Your task to perform on an android device: Toggle the flashlight Image 0: 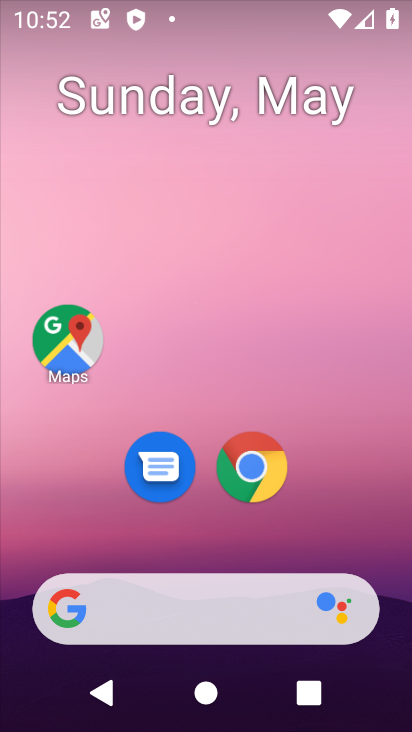
Step 0: drag from (187, 2) to (186, 458)
Your task to perform on an android device: Toggle the flashlight Image 1: 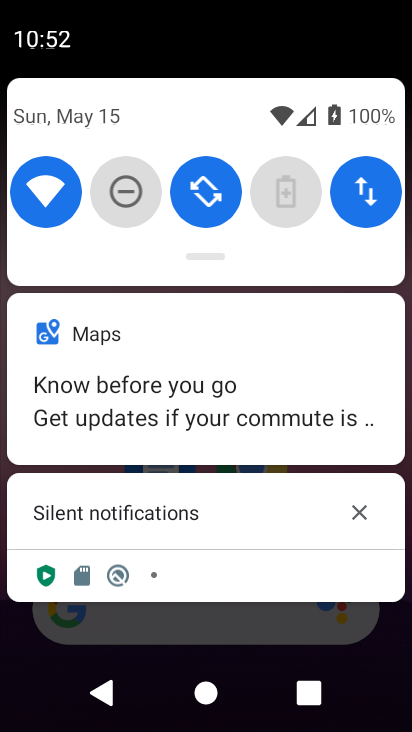
Step 1: task complete